Your task to perform on an android device: turn smart compose on in the gmail app Image 0: 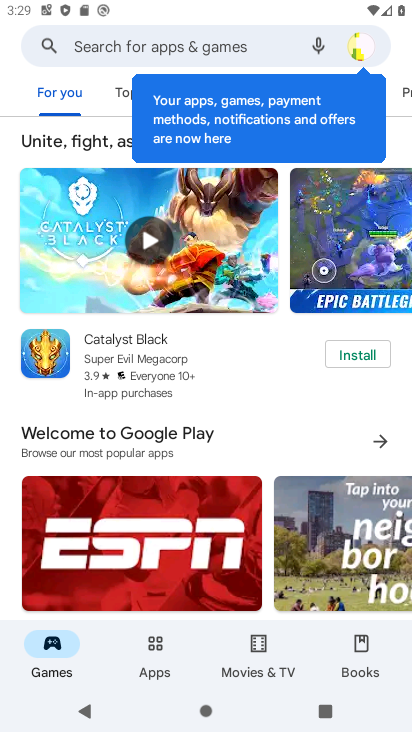
Step 0: press back button
Your task to perform on an android device: turn smart compose on in the gmail app Image 1: 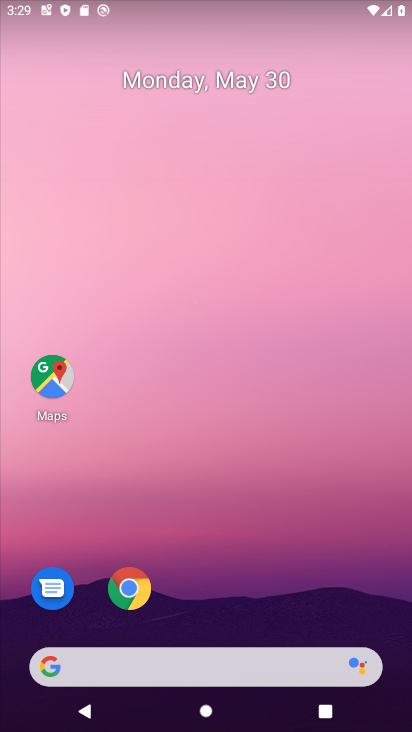
Step 1: drag from (248, 582) to (220, 3)
Your task to perform on an android device: turn smart compose on in the gmail app Image 2: 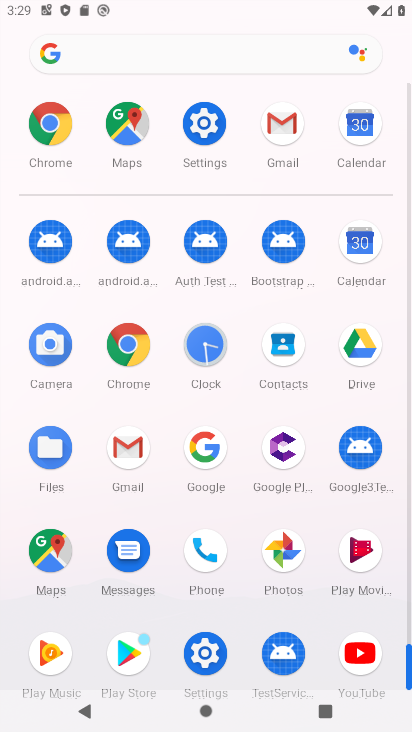
Step 2: drag from (10, 576) to (22, 282)
Your task to perform on an android device: turn smart compose on in the gmail app Image 3: 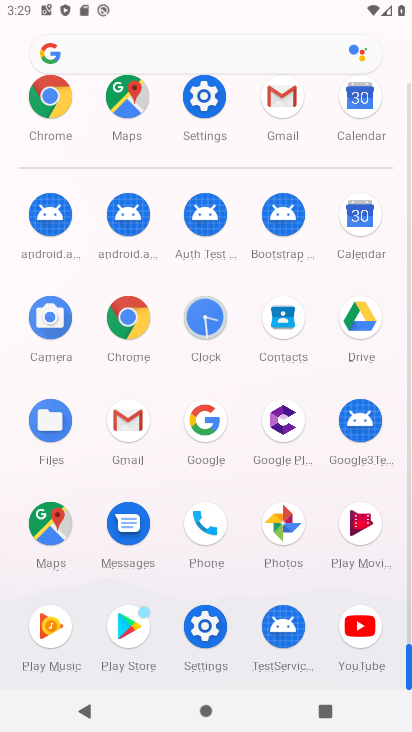
Step 3: click (125, 415)
Your task to perform on an android device: turn smart compose on in the gmail app Image 4: 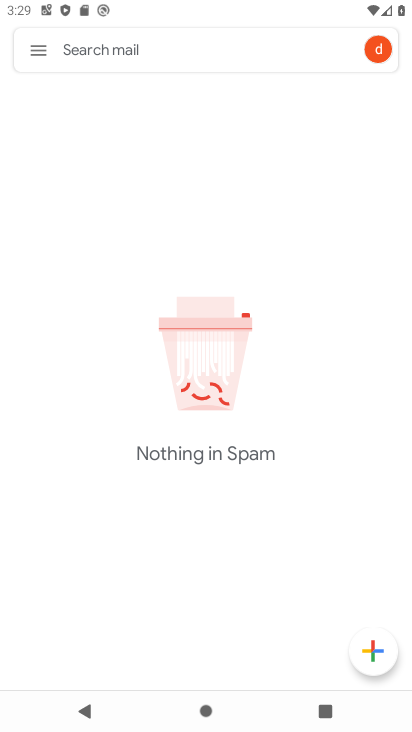
Step 4: click (45, 47)
Your task to perform on an android device: turn smart compose on in the gmail app Image 5: 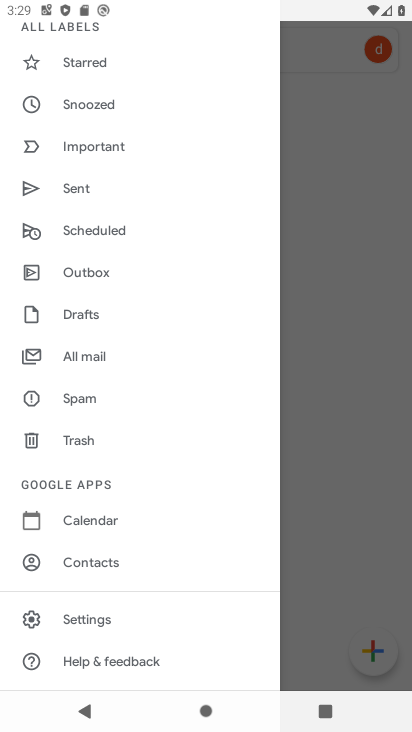
Step 5: click (119, 620)
Your task to perform on an android device: turn smart compose on in the gmail app Image 6: 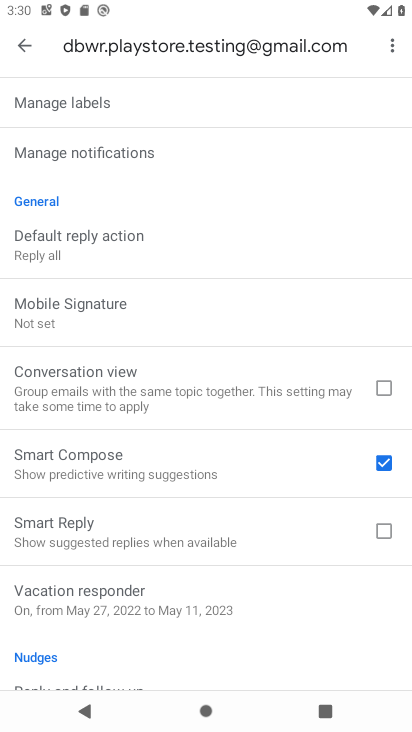
Step 6: task complete